Your task to perform on an android device: Is it going to rain today? Image 0: 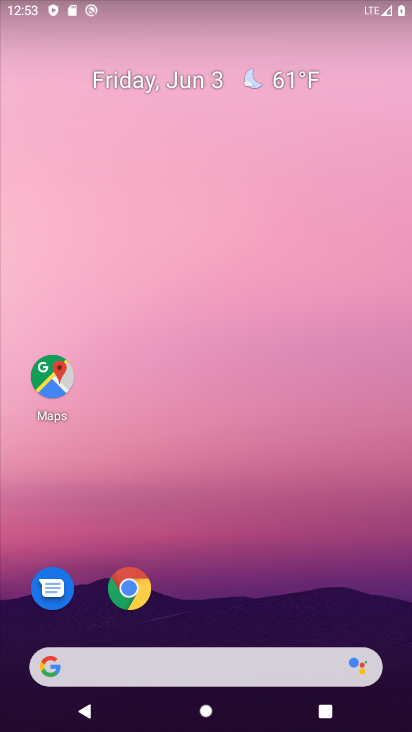
Step 0: drag from (37, 626) to (354, 95)
Your task to perform on an android device: Is it going to rain today? Image 1: 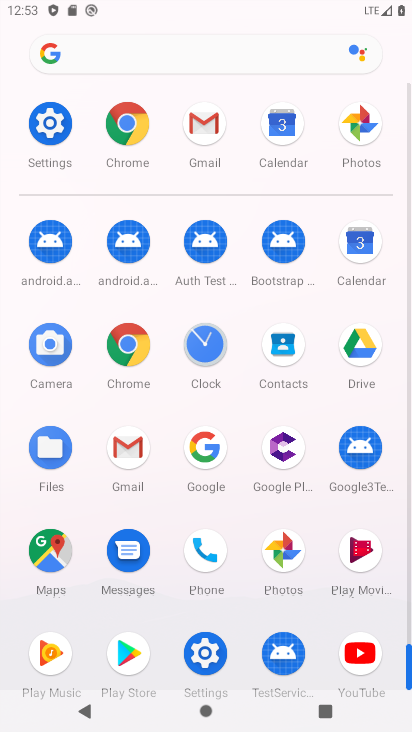
Step 1: press home button
Your task to perform on an android device: Is it going to rain today? Image 2: 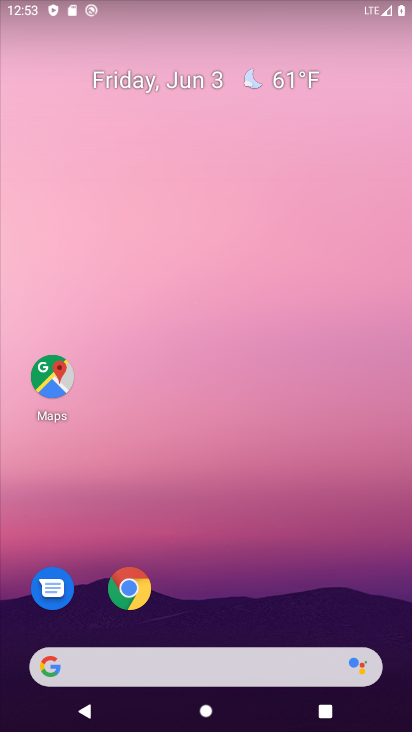
Step 2: click (158, 674)
Your task to perform on an android device: Is it going to rain today? Image 3: 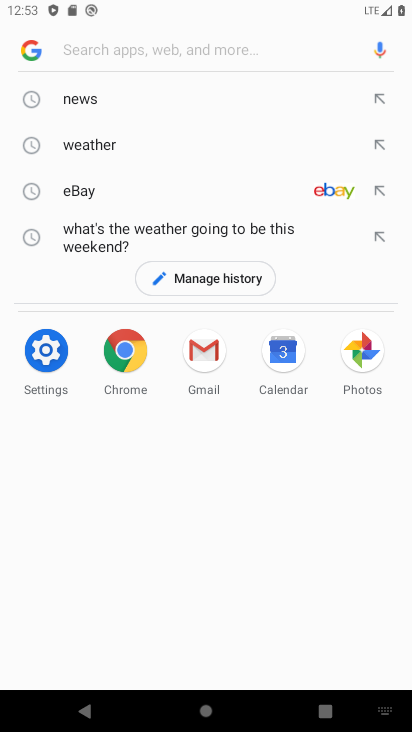
Step 3: click (122, 148)
Your task to perform on an android device: Is it going to rain today? Image 4: 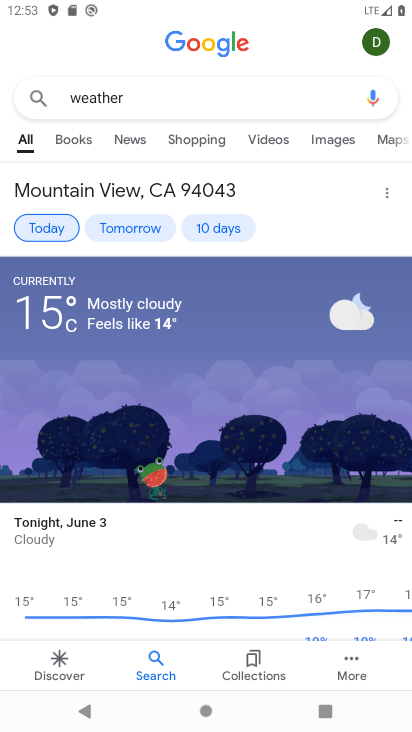
Step 4: click (72, 232)
Your task to perform on an android device: Is it going to rain today? Image 5: 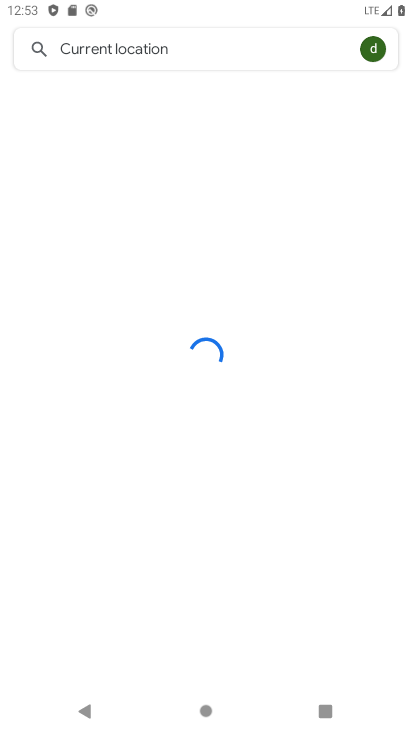
Step 5: task complete